Your task to perform on an android device: Show me productivity apps on the Play Store Image 0: 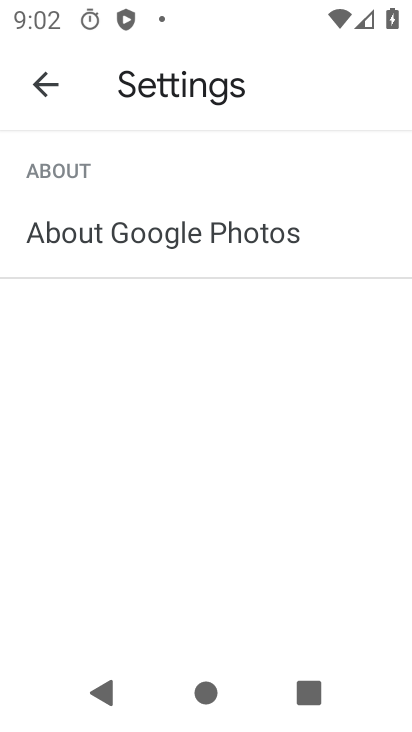
Step 0: press home button
Your task to perform on an android device: Show me productivity apps on the Play Store Image 1: 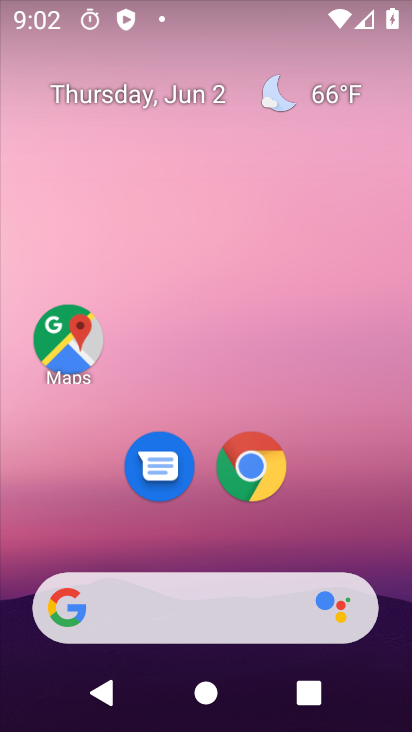
Step 1: drag from (91, 563) to (291, 185)
Your task to perform on an android device: Show me productivity apps on the Play Store Image 2: 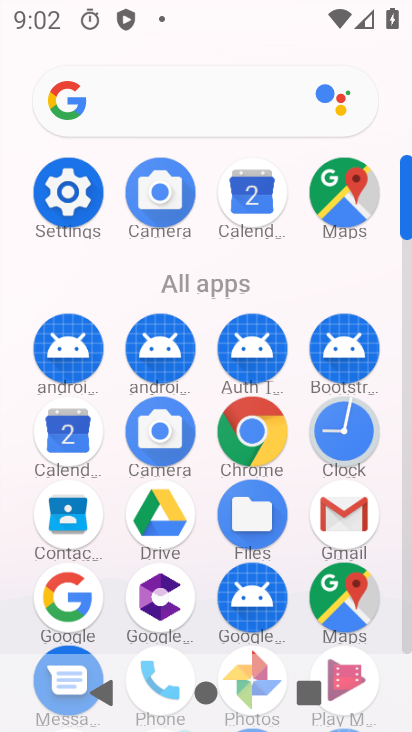
Step 2: drag from (34, 596) to (309, 152)
Your task to perform on an android device: Show me productivity apps on the Play Store Image 3: 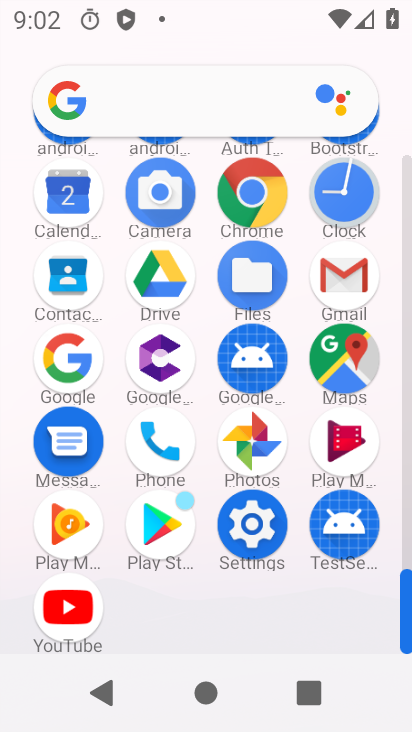
Step 3: click (150, 537)
Your task to perform on an android device: Show me productivity apps on the Play Store Image 4: 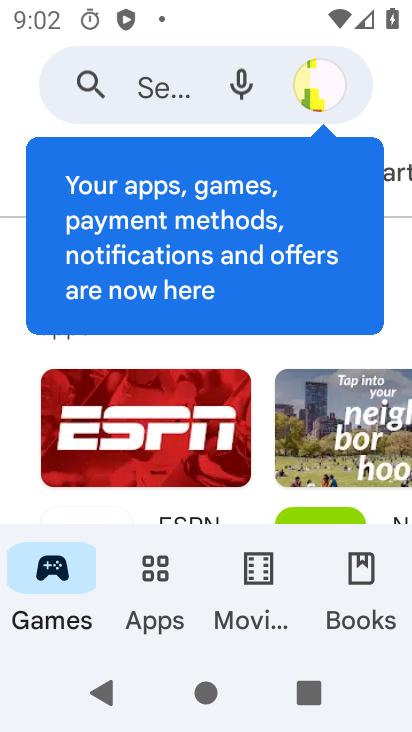
Step 4: click (155, 576)
Your task to perform on an android device: Show me productivity apps on the Play Store Image 5: 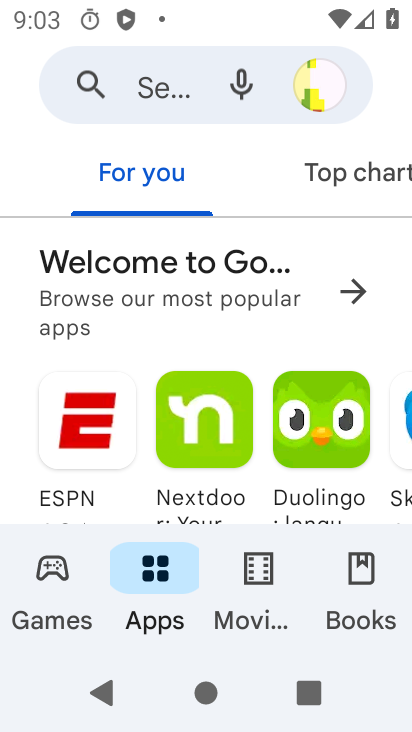
Step 5: task complete